Your task to perform on an android device: Go to Google maps Image 0: 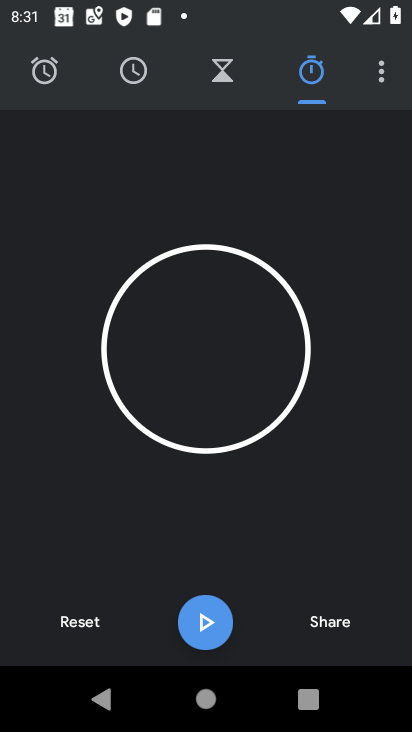
Step 0: press home button
Your task to perform on an android device: Go to Google maps Image 1: 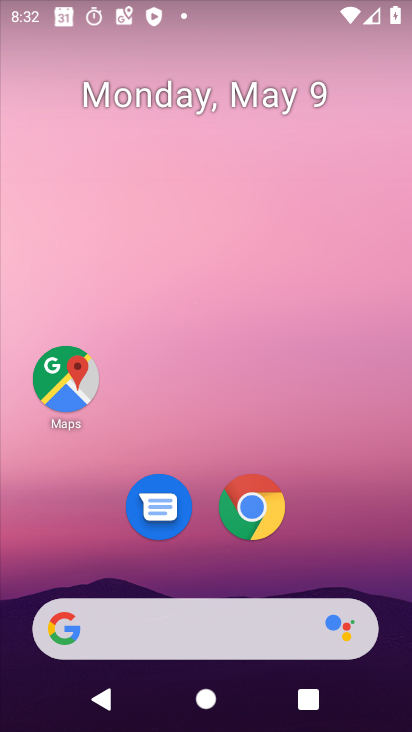
Step 1: click (98, 379)
Your task to perform on an android device: Go to Google maps Image 2: 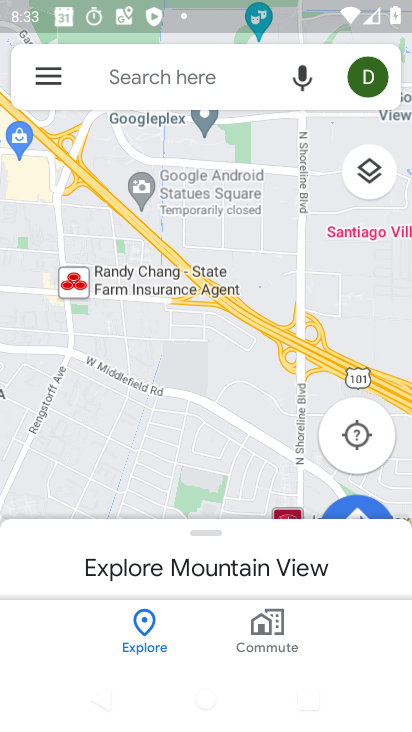
Step 2: task complete